Your task to perform on an android device: turn off data saver in the chrome app Image 0: 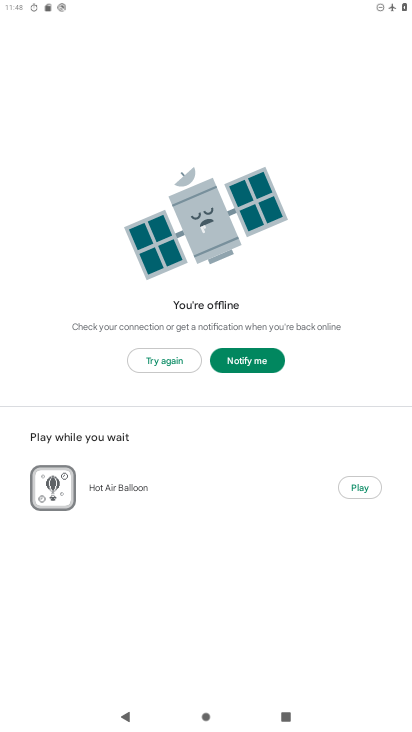
Step 0: press home button
Your task to perform on an android device: turn off data saver in the chrome app Image 1: 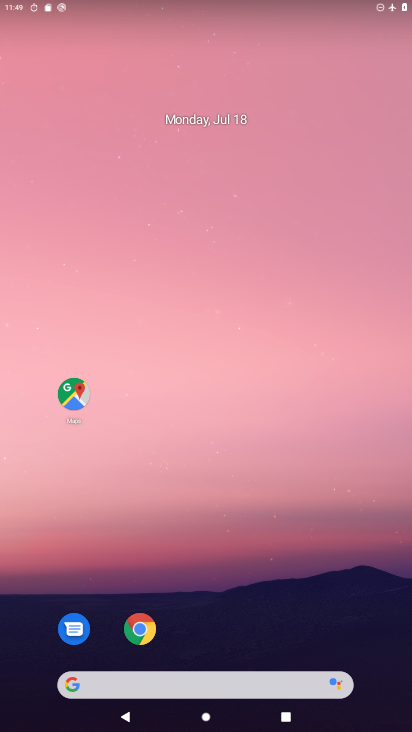
Step 1: drag from (237, 590) to (173, 87)
Your task to perform on an android device: turn off data saver in the chrome app Image 2: 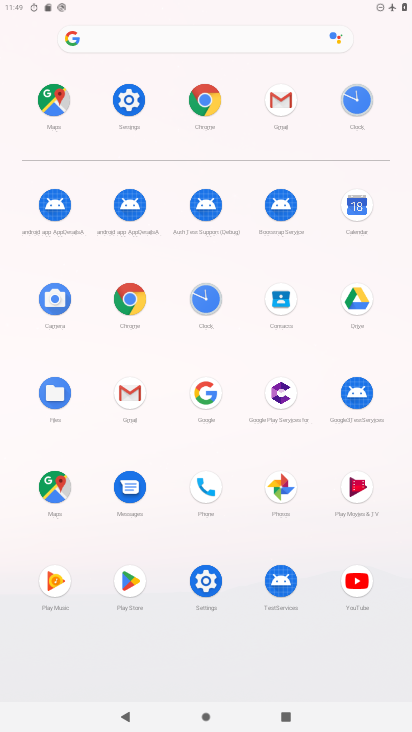
Step 2: click (128, 297)
Your task to perform on an android device: turn off data saver in the chrome app Image 3: 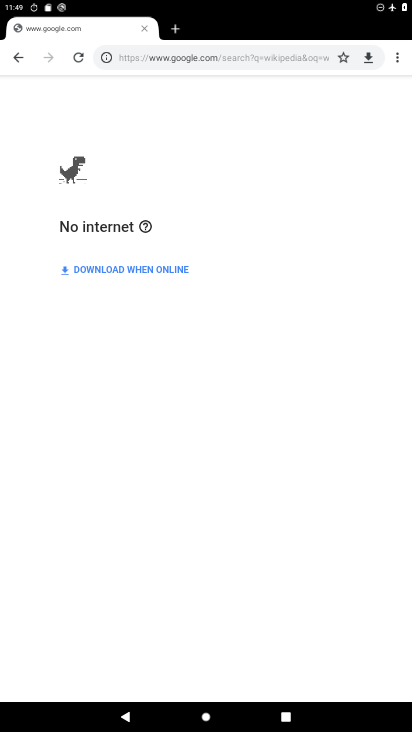
Step 3: drag from (401, 53) to (289, 394)
Your task to perform on an android device: turn off data saver in the chrome app Image 4: 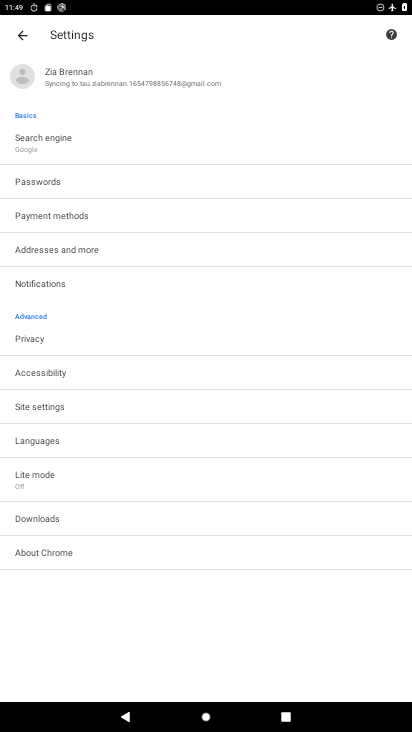
Step 4: click (67, 484)
Your task to perform on an android device: turn off data saver in the chrome app Image 5: 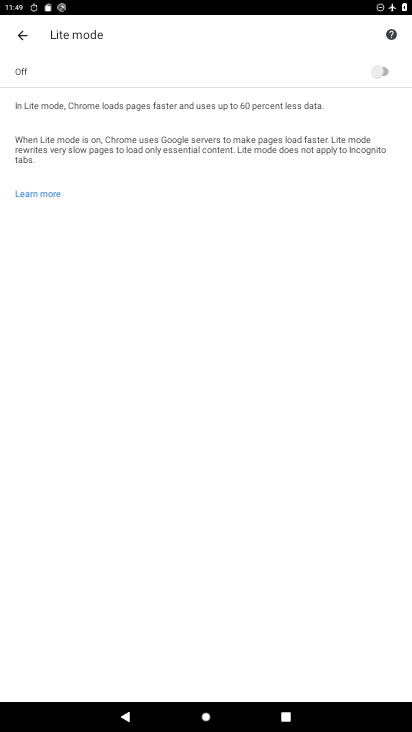
Step 5: task complete